Your task to perform on an android device: create a new album in the google photos Image 0: 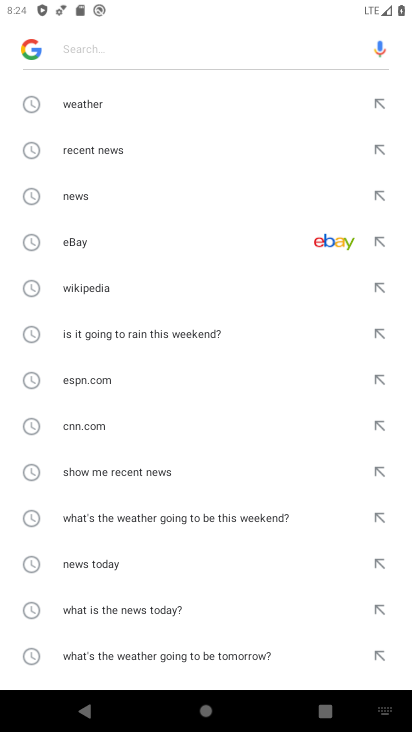
Step 0: press home button
Your task to perform on an android device: create a new album in the google photos Image 1: 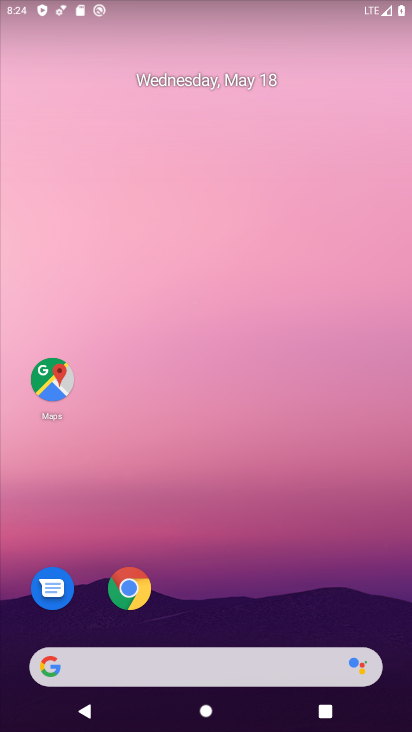
Step 1: drag from (391, 622) to (401, 2)
Your task to perform on an android device: create a new album in the google photos Image 2: 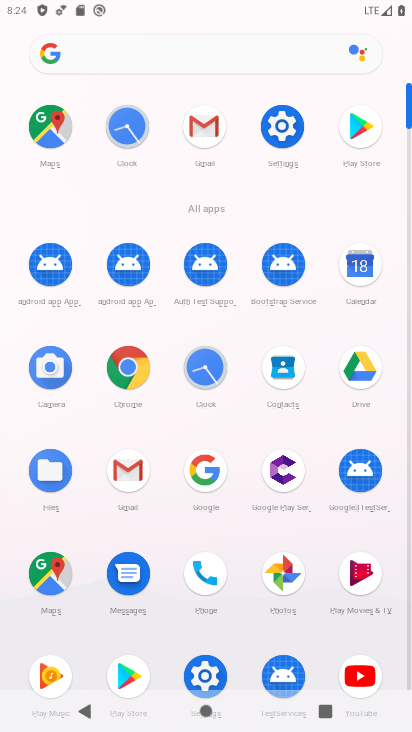
Step 2: click (284, 580)
Your task to perform on an android device: create a new album in the google photos Image 3: 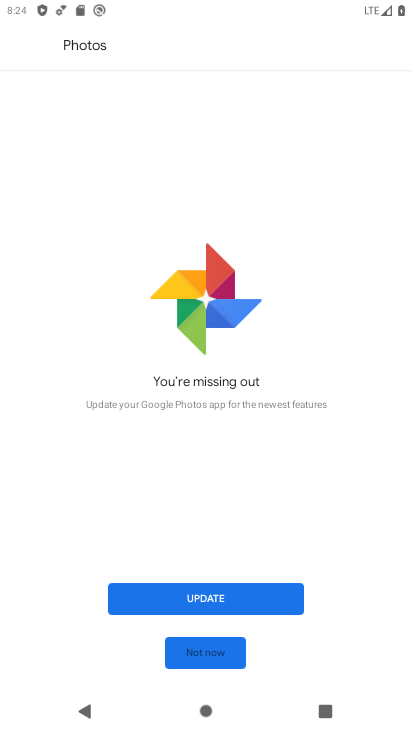
Step 3: click (216, 648)
Your task to perform on an android device: create a new album in the google photos Image 4: 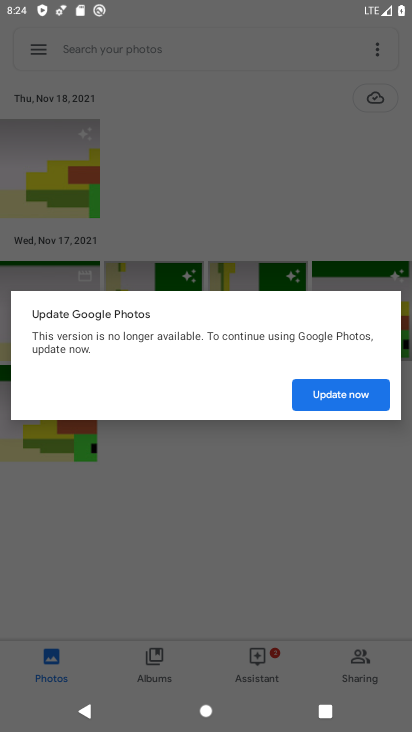
Step 4: click (320, 391)
Your task to perform on an android device: create a new album in the google photos Image 5: 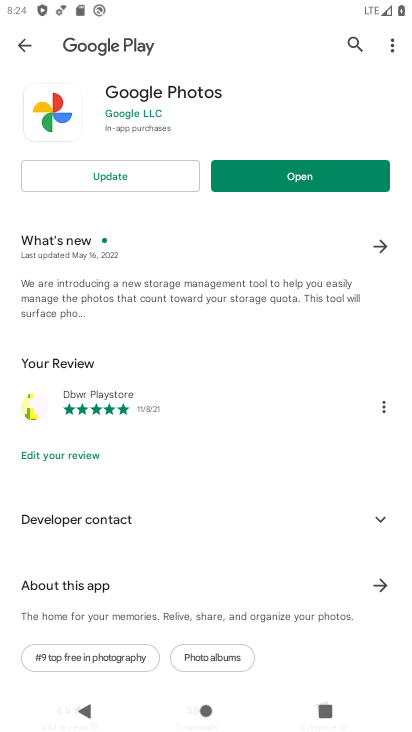
Step 5: click (282, 178)
Your task to perform on an android device: create a new album in the google photos Image 6: 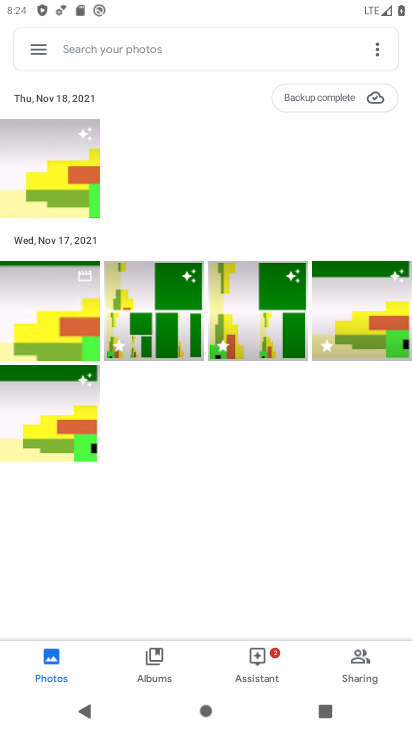
Step 6: click (181, 311)
Your task to perform on an android device: create a new album in the google photos Image 7: 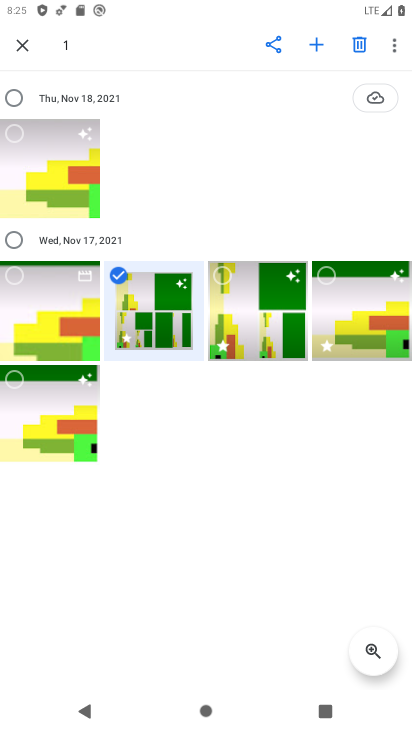
Step 7: click (230, 315)
Your task to perform on an android device: create a new album in the google photos Image 8: 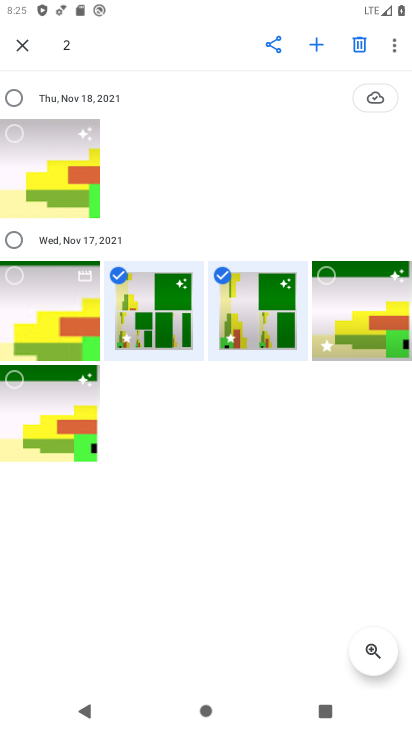
Step 8: click (311, 44)
Your task to perform on an android device: create a new album in the google photos Image 9: 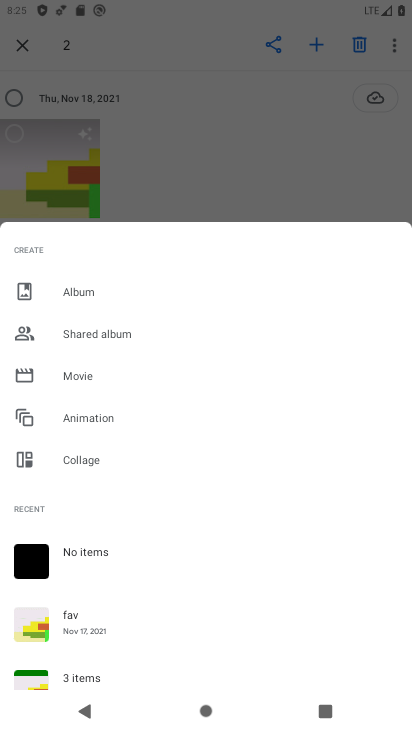
Step 9: click (78, 294)
Your task to perform on an android device: create a new album in the google photos Image 10: 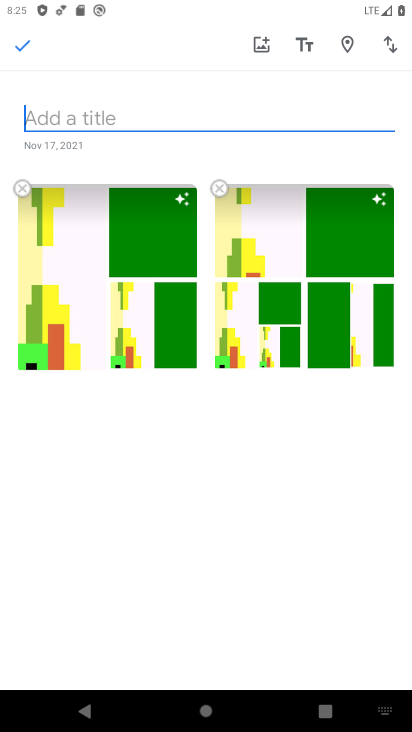
Step 10: type "new 1"
Your task to perform on an android device: create a new album in the google photos Image 11: 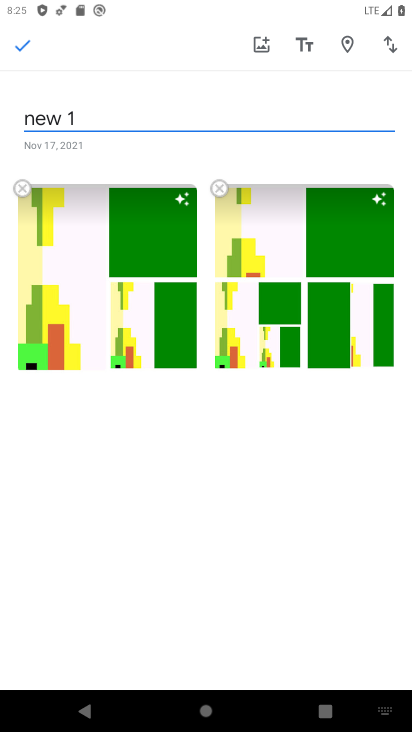
Step 11: click (28, 44)
Your task to perform on an android device: create a new album in the google photos Image 12: 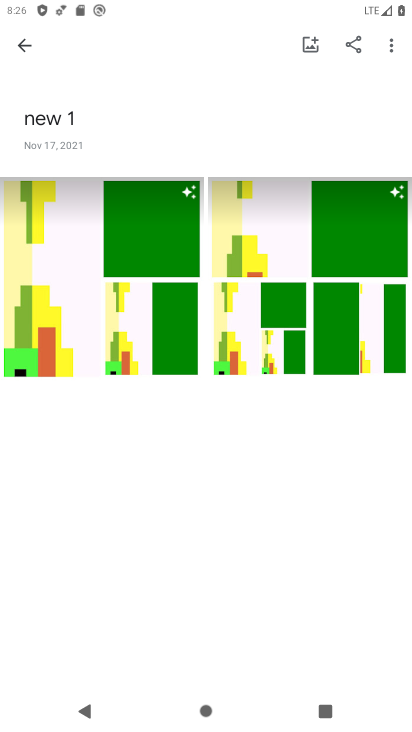
Step 12: task complete